Your task to perform on an android device: open app "Etsy: Buy & Sell Unique Items" (install if not already installed) Image 0: 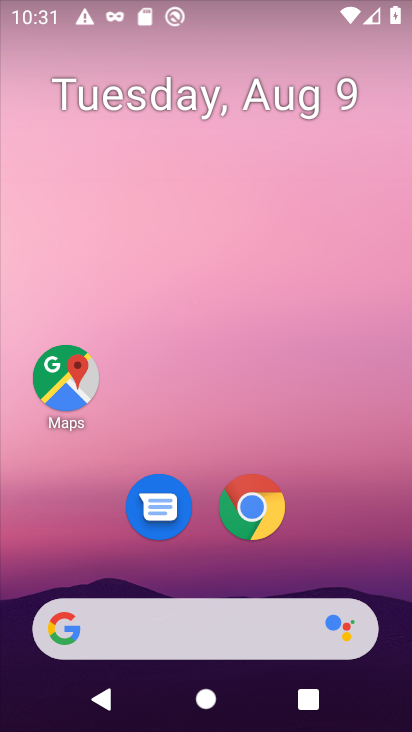
Step 0: drag from (265, 635) to (261, 77)
Your task to perform on an android device: open app "Etsy: Buy & Sell Unique Items" (install if not already installed) Image 1: 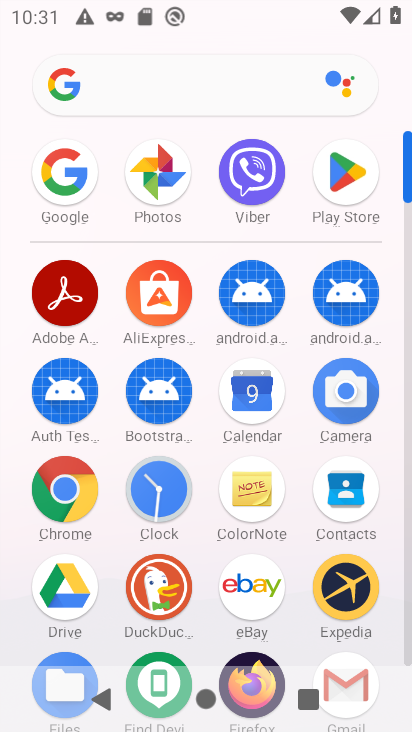
Step 1: click (347, 172)
Your task to perform on an android device: open app "Etsy: Buy & Sell Unique Items" (install if not already installed) Image 2: 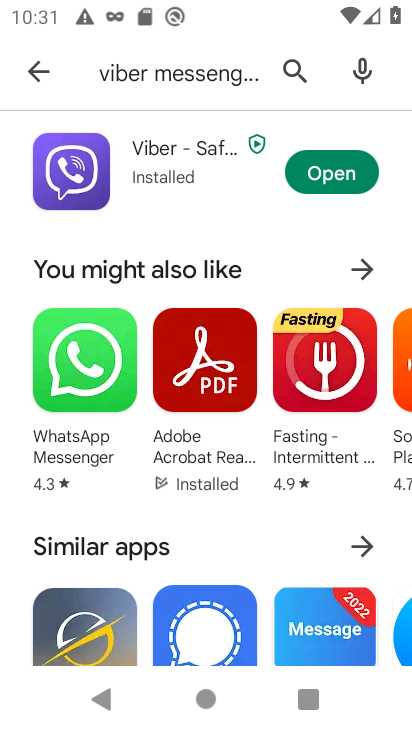
Step 2: click (294, 69)
Your task to perform on an android device: open app "Etsy: Buy & Sell Unique Items" (install if not already installed) Image 3: 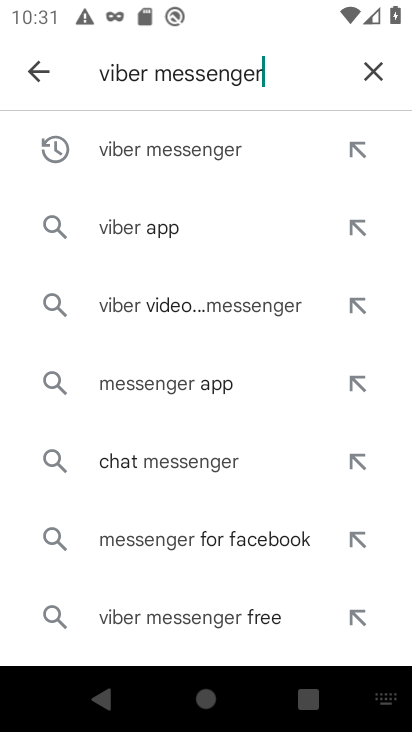
Step 3: click (368, 71)
Your task to perform on an android device: open app "Etsy: Buy & Sell Unique Items" (install if not already installed) Image 4: 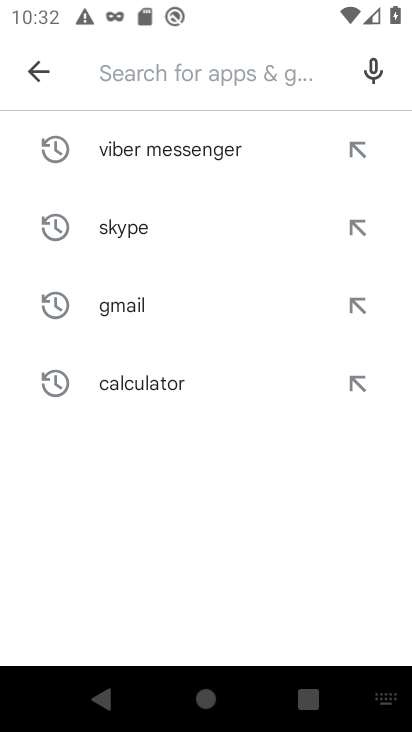
Step 4: type "Etsy: Buy & Sell Unique Items"
Your task to perform on an android device: open app "Etsy: Buy & Sell Unique Items" (install if not already installed) Image 5: 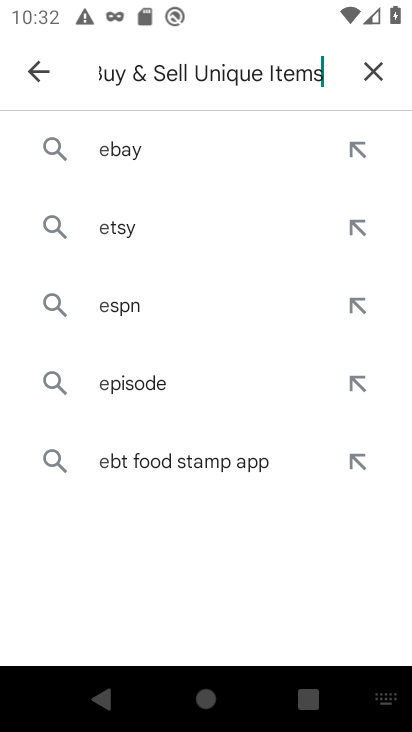
Step 5: type ""
Your task to perform on an android device: open app "Etsy: Buy & Sell Unique Items" (install if not already installed) Image 6: 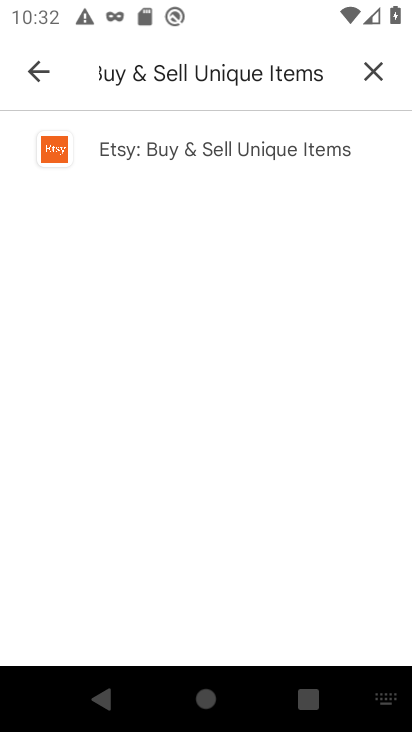
Step 6: click (236, 156)
Your task to perform on an android device: open app "Etsy: Buy & Sell Unique Items" (install if not already installed) Image 7: 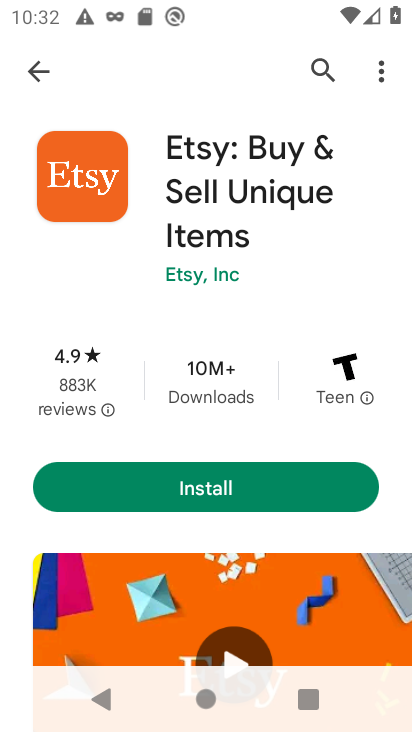
Step 7: click (225, 496)
Your task to perform on an android device: open app "Etsy: Buy & Sell Unique Items" (install if not already installed) Image 8: 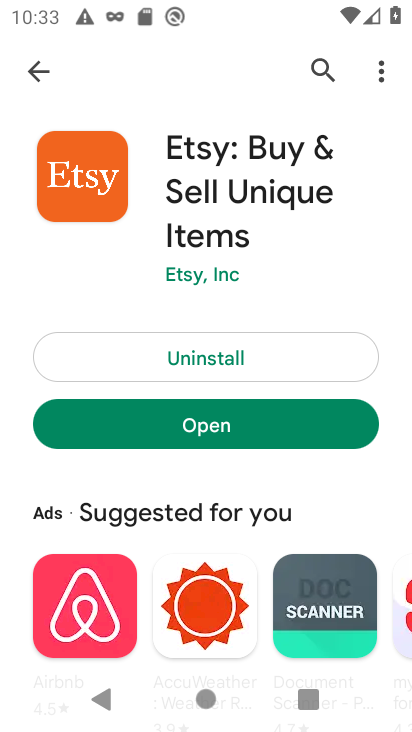
Step 8: click (258, 435)
Your task to perform on an android device: open app "Etsy: Buy & Sell Unique Items" (install if not already installed) Image 9: 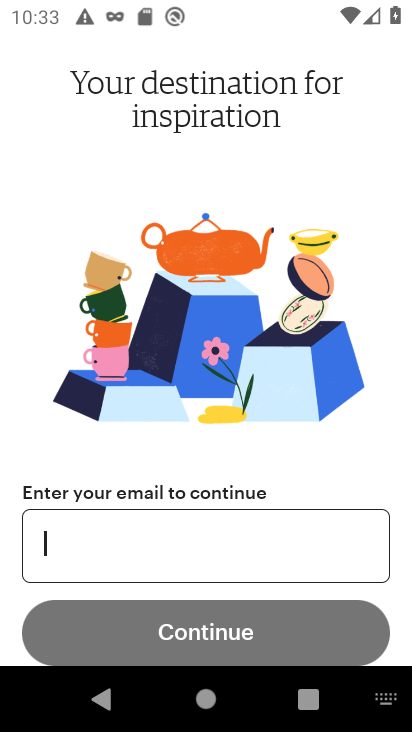
Step 9: task complete